Your task to perform on an android device: What is the recent news? Image 0: 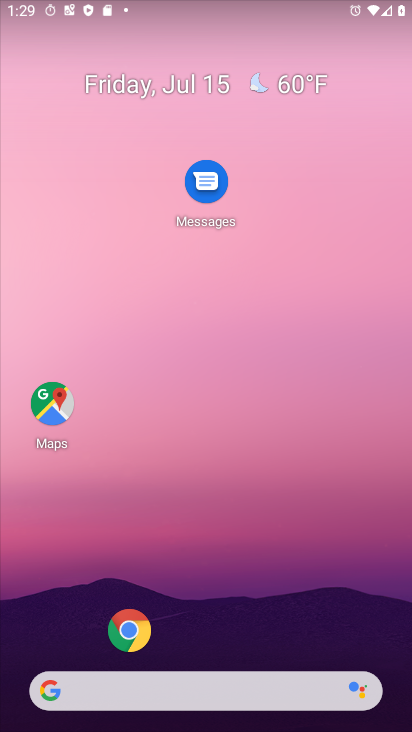
Step 0: click (103, 679)
Your task to perform on an android device: What is the recent news? Image 1: 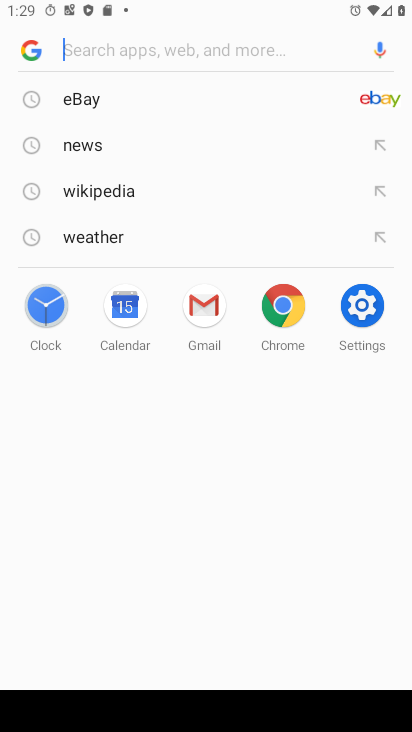
Step 1: type "What is the recent news?"
Your task to perform on an android device: What is the recent news? Image 2: 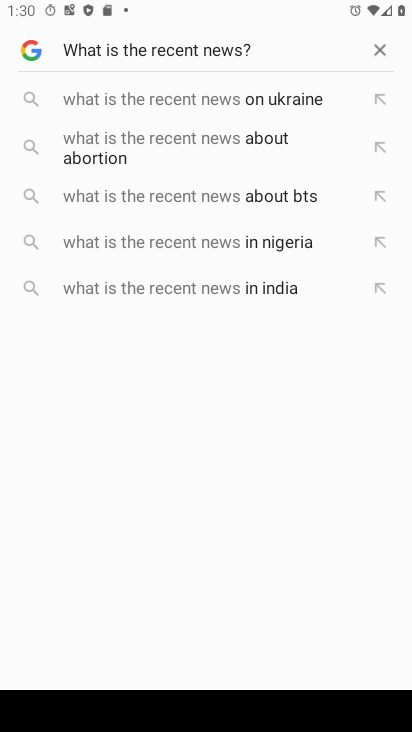
Step 2: task complete